Your task to perform on an android device: Show me popular videos on Youtube Image 0: 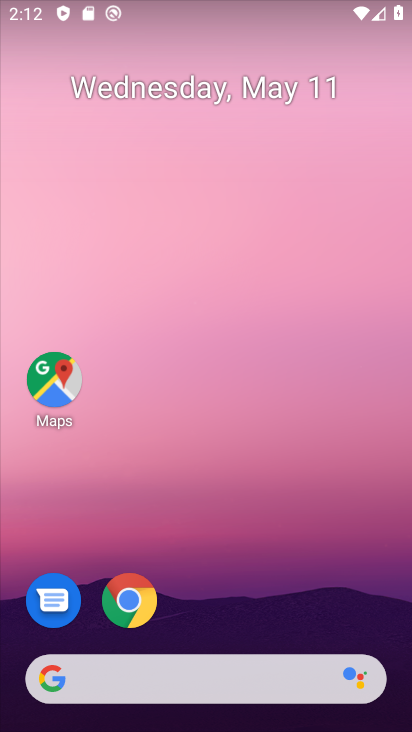
Step 0: drag from (189, 508) to (243, 64)
Your task to perform on an android device: Show me popular videos on Youtube Image 1: 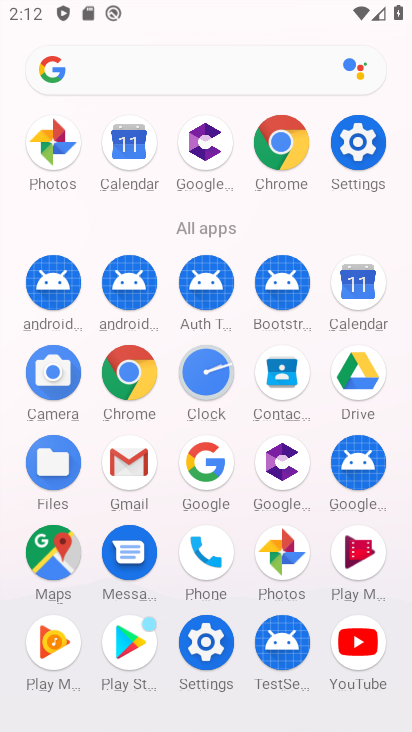
Step 1: click (352, 624)
Your task to perform on an android device: Show me popular videos on Youtube Image 2: 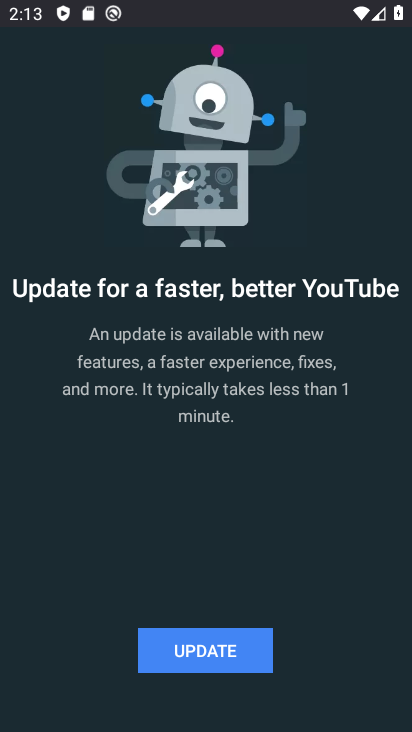
Step 2: click (206, 668)
Your task to perform on an android device: Show me popular videos on Youtube Image 3: 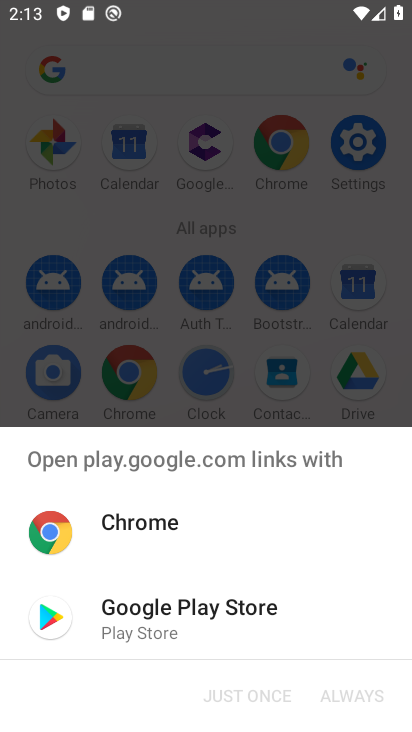
Step 3: click (169, 524)
Your task to perform on an android device: Show me popular videos on Youtube Image 4: 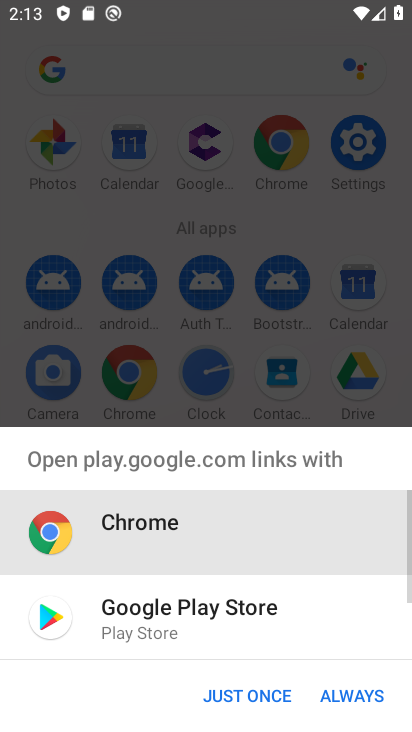
Step 4: click (185, 631)
Your task to perform on an android device: Show me popular videos on Youtube Image 5: 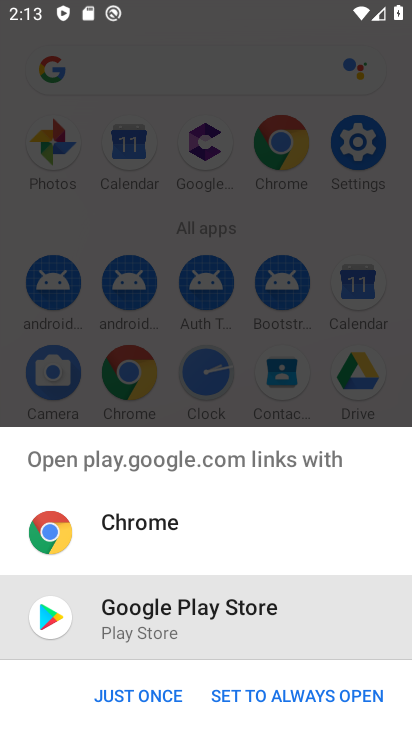
Step 5: click (154, 697)
Your task to perform on an android device: Show me popular videos on Youtube Image 6: 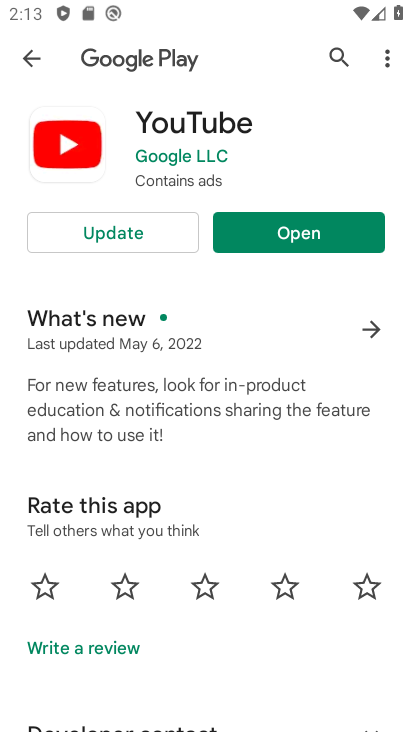
Step 6: click (106, 228)
Your task to perform on an android device: Show me popular videos on Youtube Image 7: 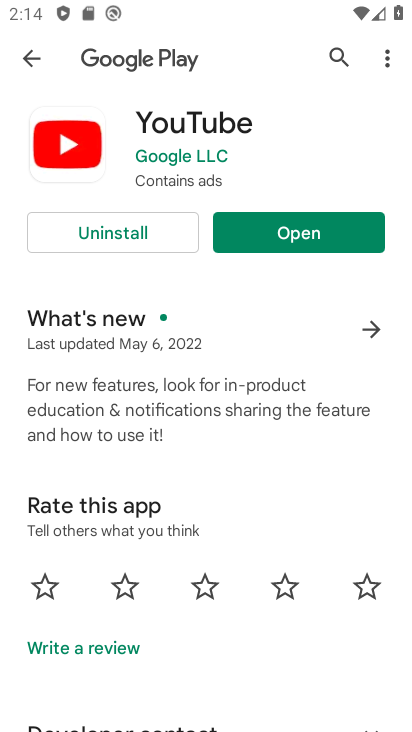
Step 7: click (352, 227)
Your task to perform on an android device: Show me popular videos on Youtube Image 8: 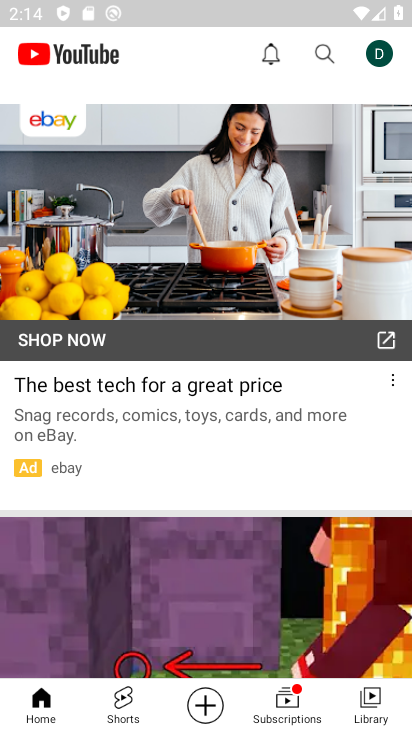
Step 8: click (324, 50)
Your task to perform on an android device: Show me popular videos on Youtube Image 9: 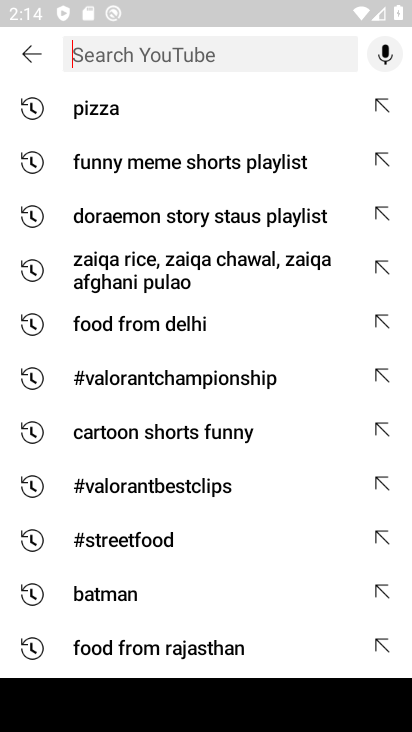
Step 9: click (27, 59)
Your task to perform on an android device: Show me popular videos on Youtube Image 10: 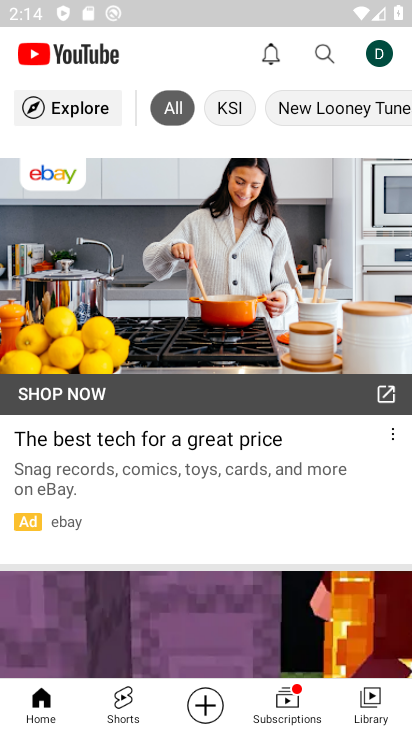
Step 10: task complete